Your task to perform on an android device: Open the map Image 0: 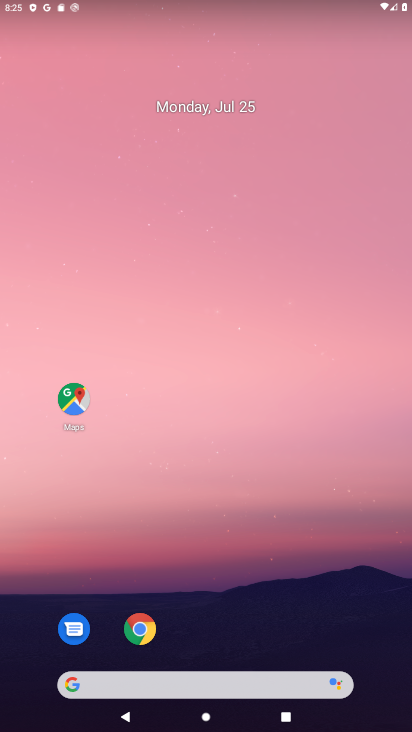
Step 0: click (70, 399)
Your task to perform on an android device: Open the map Image 1: 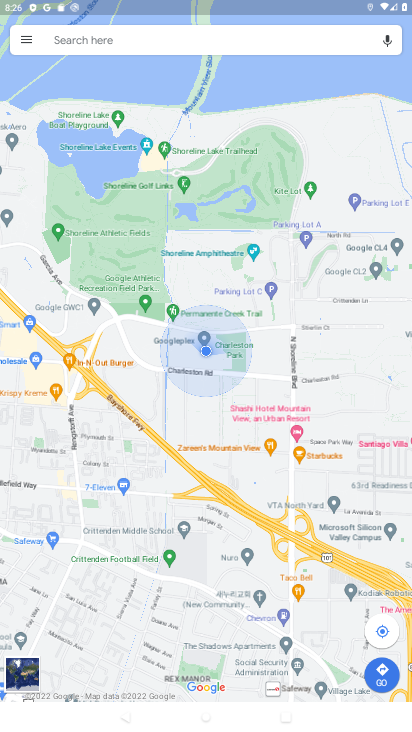
Step 1: task complete